Your task to perform on an android device: make emails show in primary in the gmail app Image 0: 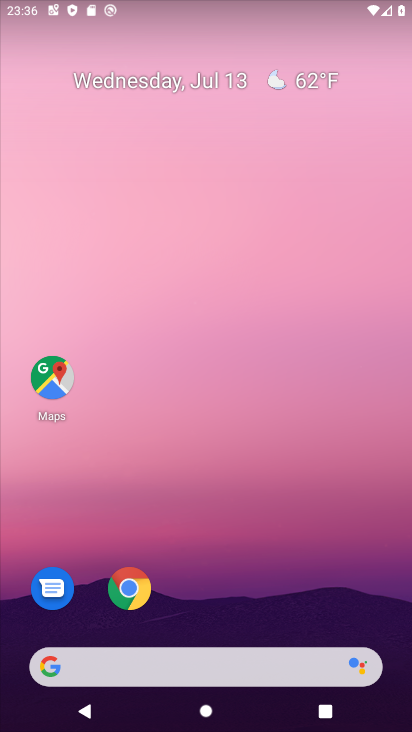
Step 0: drag from (241, 641) to (207, 266)
Your task to perform on an android device: make emails show in primary in the gmail app Image 1: 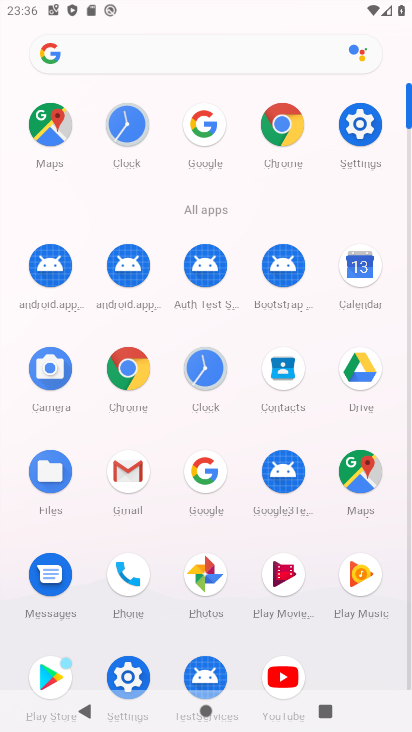
Step 1: click (135, 465)
Your task to perform on an android device: make emails show in primary in the gmail app Image 2: 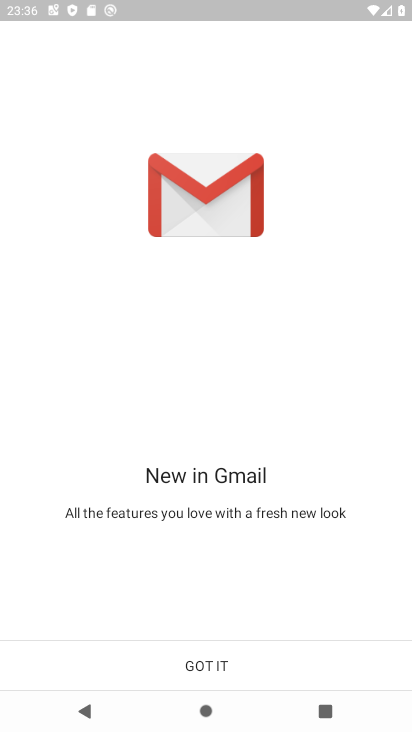
Step 2: click (217, 667)
Your task to perform on an android device: make emails show in primary in the gmail app Image 3: 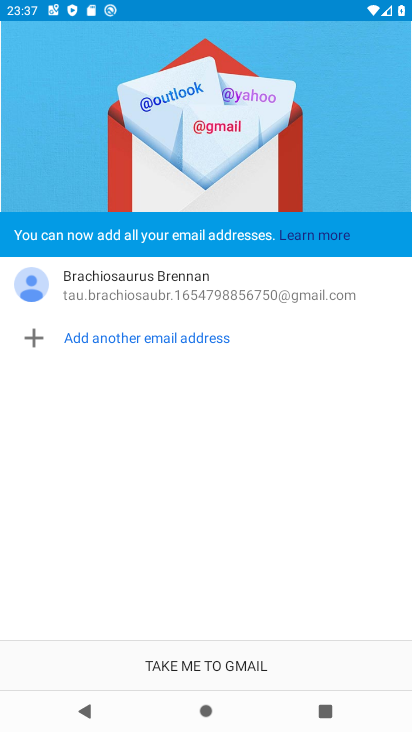
Step 3: click (209, 667)
Your task to perform on an android device: make emails show in primary in the gmail app Image 4: 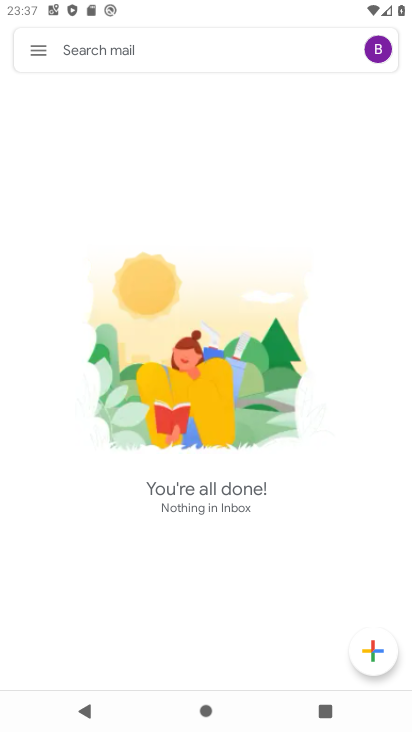
Step 4: click (33, 52)
Your task to perform on an android device: make emails show in primary in the gmail app Image 5: 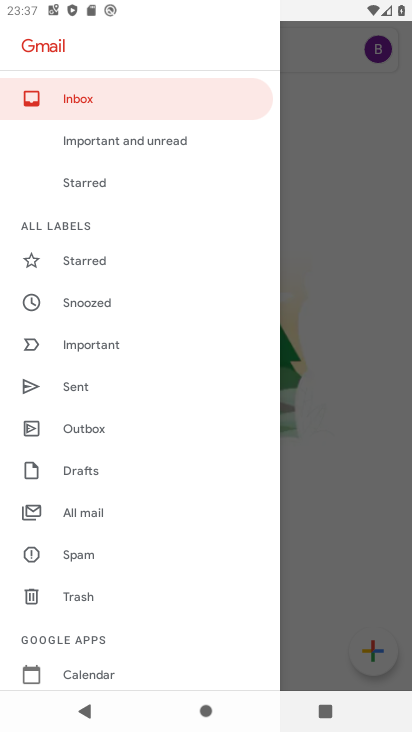
Step 5: drag from (116, 651) to (121, 361)
Your task to perform on an android device: make emails show in primary in the gmail app Image 6: 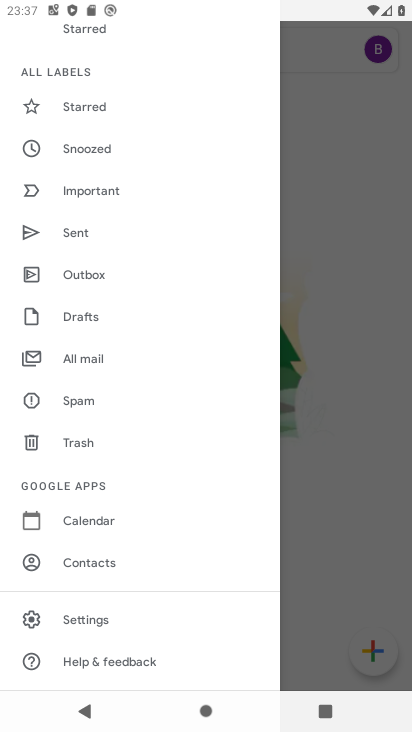
Step 6: click (77, 618)
Your task to perform on an android device: make emails show in primary in the gmail app Image 7: 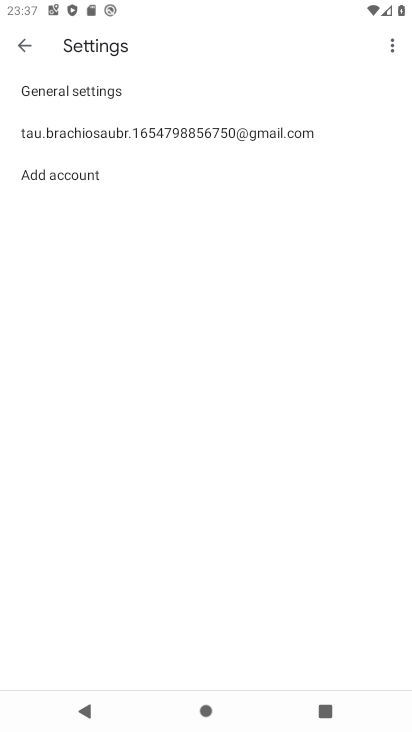
Step 7: click (95, 127)
Your task to perform on an android device: make emails show in primary in the gmail app Image 8: 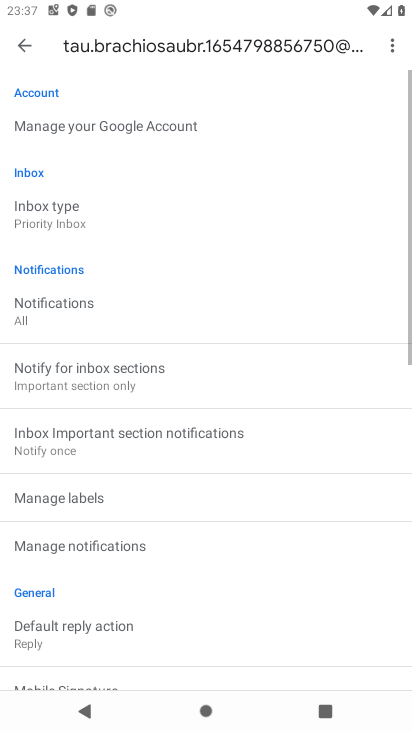
Step 8: click (30, 215)
Your task to perform on an android device: make emails show in primary in the gmail app Image 9: 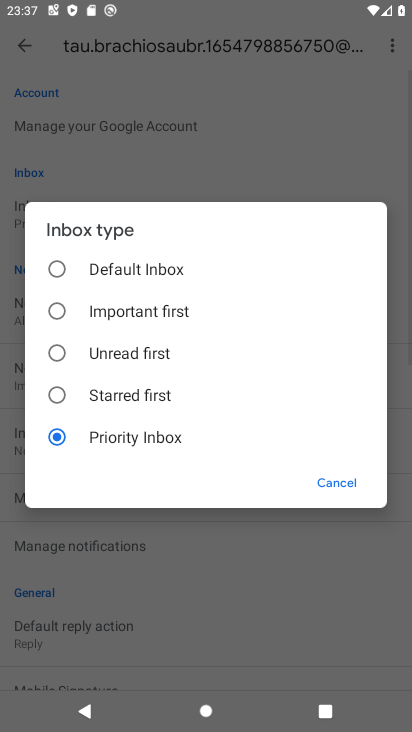
Step 9: click (87, 265)
Your task to perform on an android device: make emails show in primary in the gmail app Image 10: 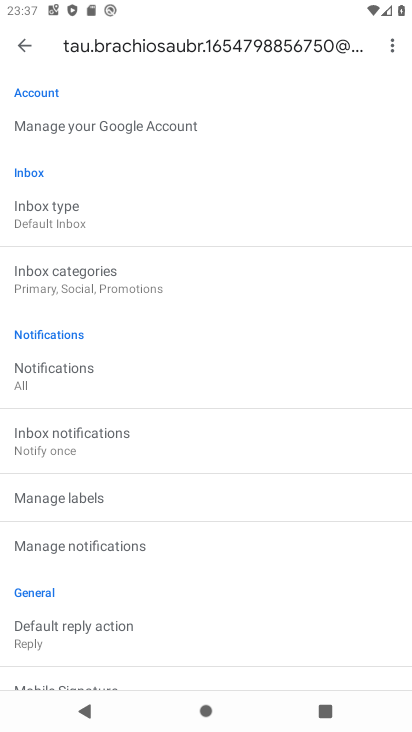
Step 10: click (74, 282)
Your task to perform on an android device: make emails show in primary in the gmail app Image 11: 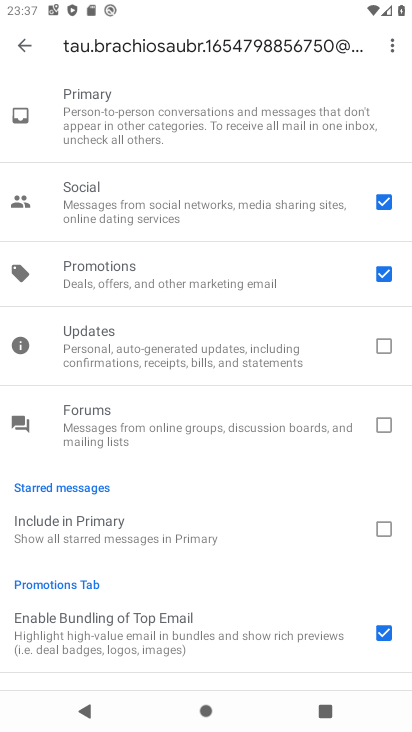
Step 11: click (385, 275)
Your task to perform on an android device: make emails show in primary in the gmail app Image 12: 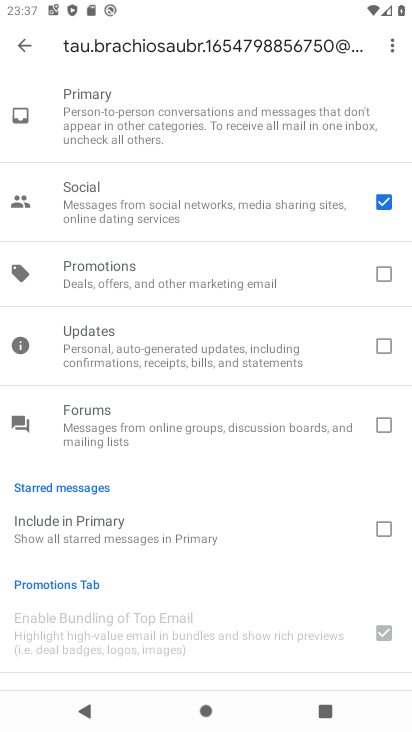
Step 12: click (376, 202)
Your task to perform on an android device: make emails show in primary in the gmail app Image 13: 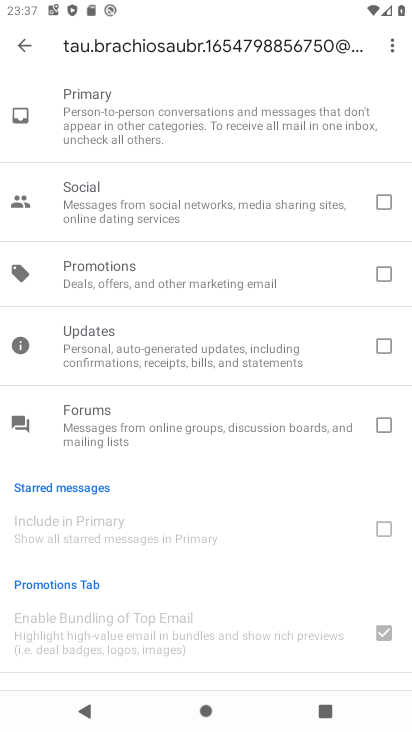
Step 13: click (21, 40)
Your task to perform on an android device: make emails show in primary in the gmail app Image 14: 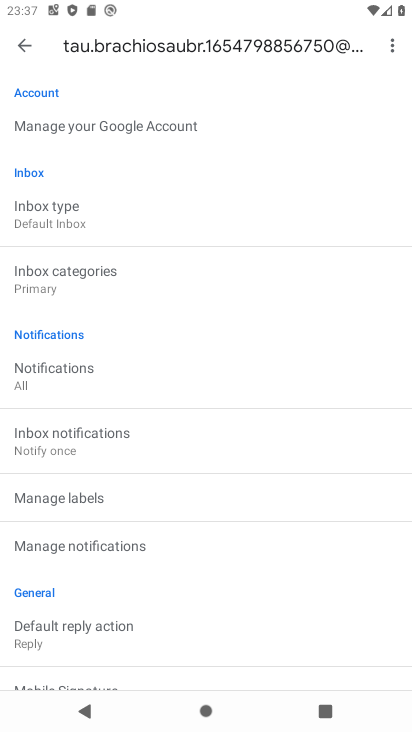
Step 14: task complete